Your task to perform on an android device: open a bookmark in the chrome app Image 0: 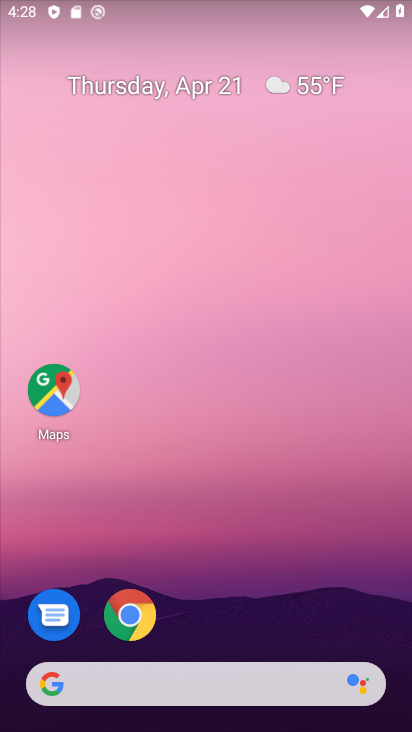
Step 0: drag from (325, 514) to (244, 8)
Your task to perform on an android device: open a bookmark in the chrome app Image 1: 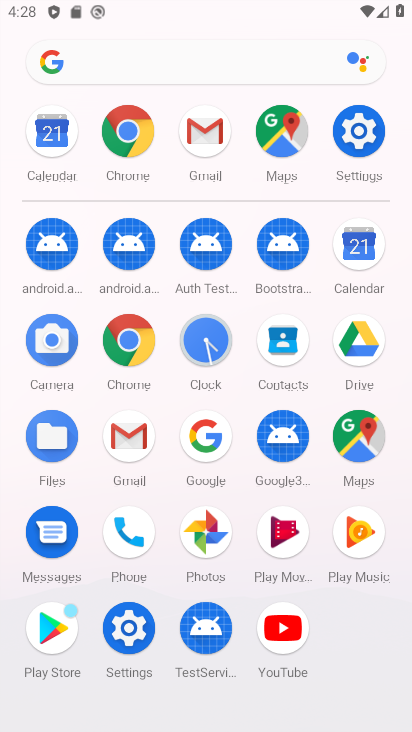
Step 1: click (123, 129)
Your task to perform on an android device: open a bookmark in the chrome app Image 2: 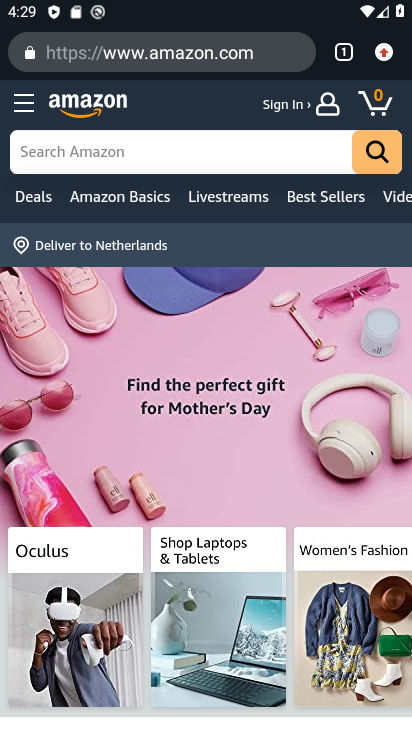
Step 2: drag from (389, 62) to (217, 660)
Your task to perform on an android device: open a bookmark in the chrome app Image 3: 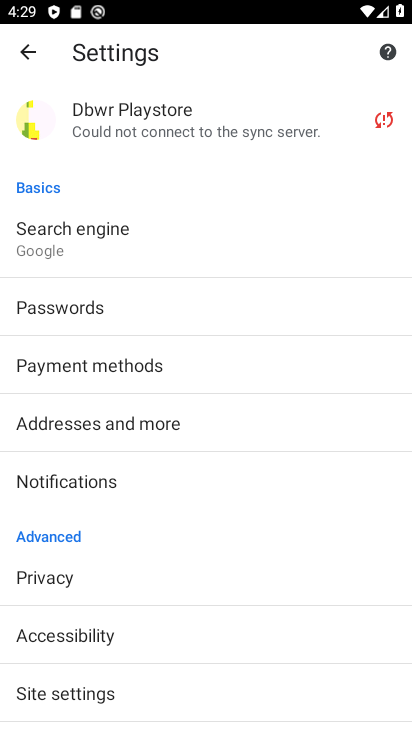
Step 3: click (24, 52)
Your task to perform on an android device: open a bookmark in the chrome app Image 4: 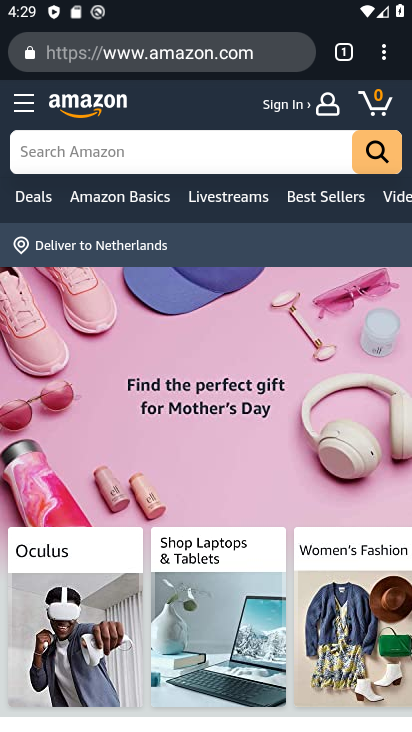
Step 4: task complete